Your task to perform on an android device: Play the last video I watched on Youtube Image 0: 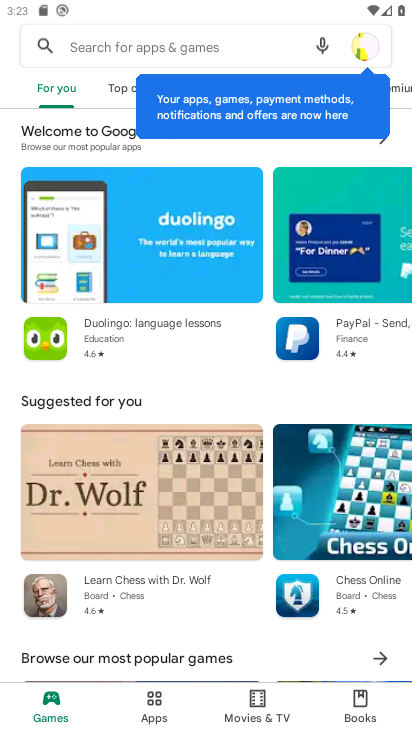
Step 0: press home button
Your task to perform on an android device: Play the last video I watched on Youtube Image 1: 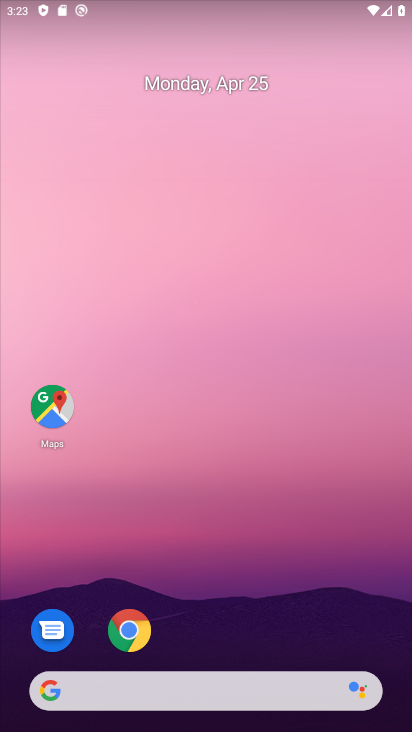
Step 1: drag from (218, 446) to (266, 7)
Your task to perform on an android device: Play the last video I watched on Youtube Image 2: 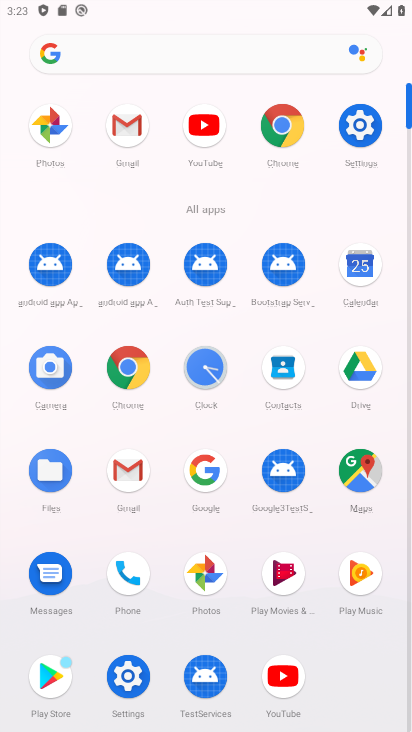
Step 2: click (198, 126)
Your task to perform on an android device: Play the last video I watched on Youtube Image 3: 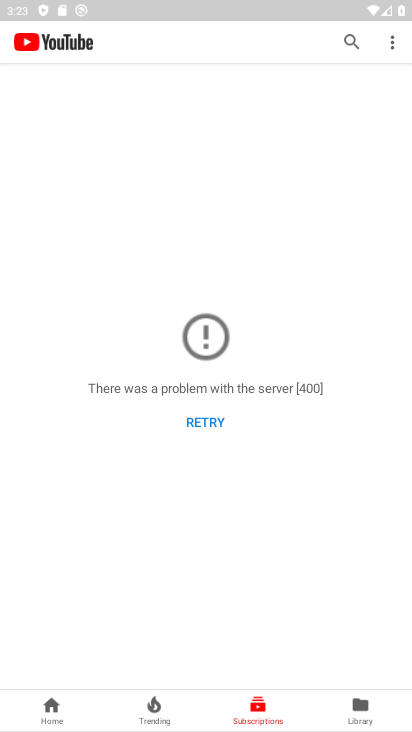
Step 3: click (360, 709)
Your task to perform on an android device: Play the last video I watched on Youtube Image 4: 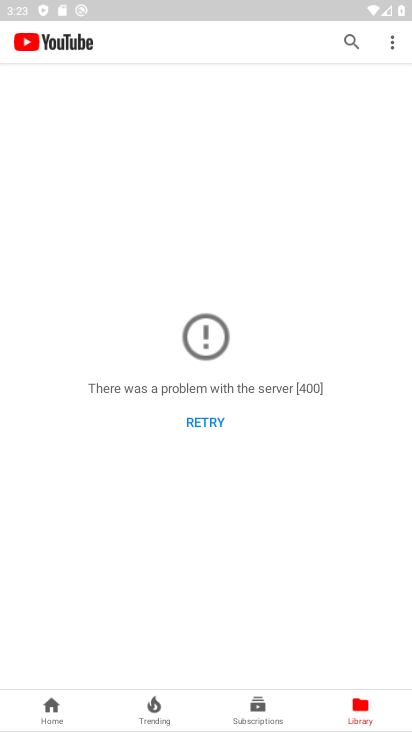
Step 4: task complete